Your task to perform on an android device: turn on showing notifications on the lock screen Image 0: 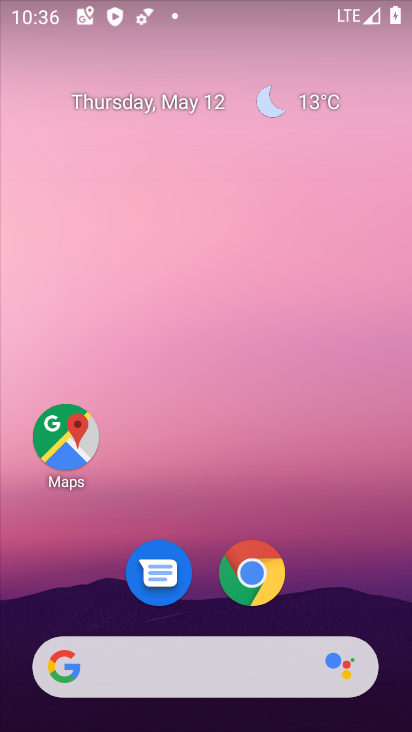
Step 0: drag from (206, 622) to (166, 70)
Your task to perform on an android device: turn on showing notifications on the lock screen Image 1: 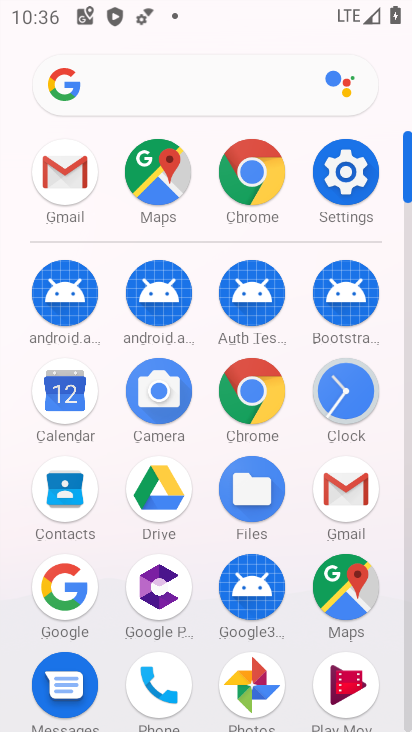
Step 1: click (367, 150)
Your task to perform on an android device: turn on showing notifications on the lock screen Image 2: 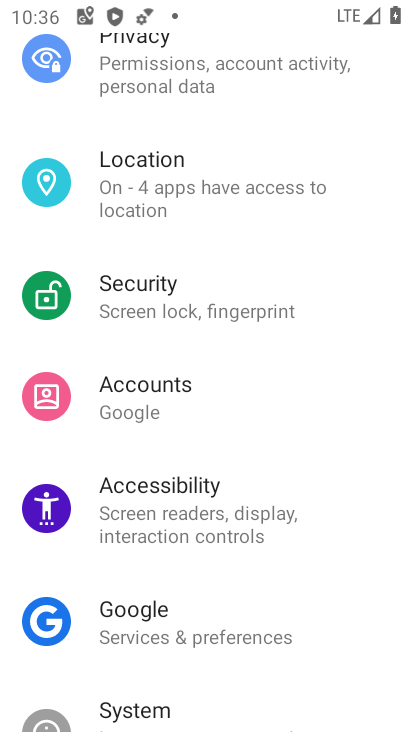
Step 2: drag from (168, 231) to (187, 632)
Your task to perform on an android device: turn on showing notifications on the lock screen Image 3: 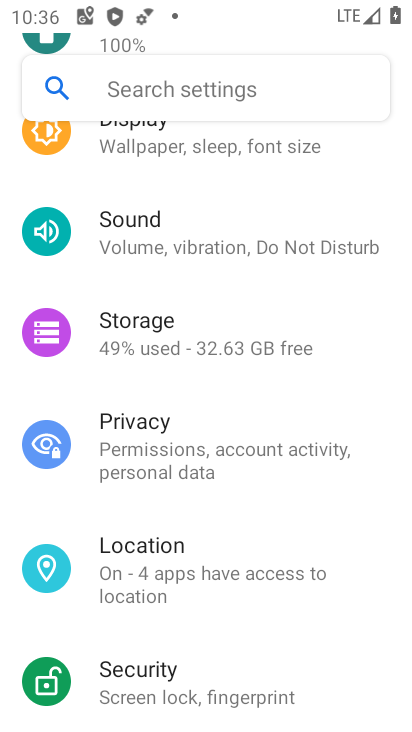
Step 3: drag from (245, 286) to (224, 619)
Your task to perform on an android device: turn on showing notifications on the lock screen Image 4: 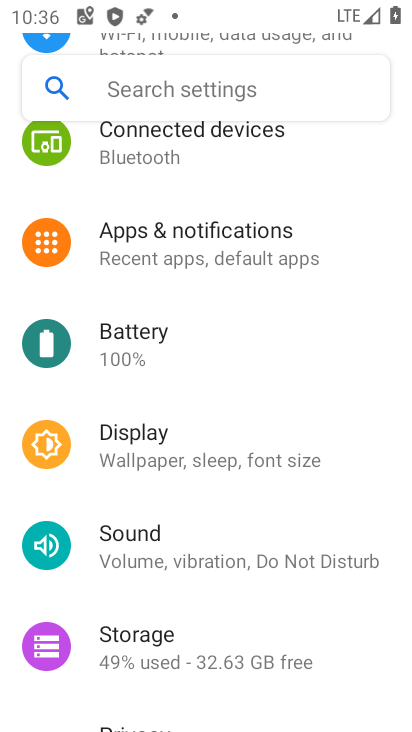
Step 4: click (179, 251)
Your task to perform on an android device: turn on showing notifications on the lock screen Image 5: 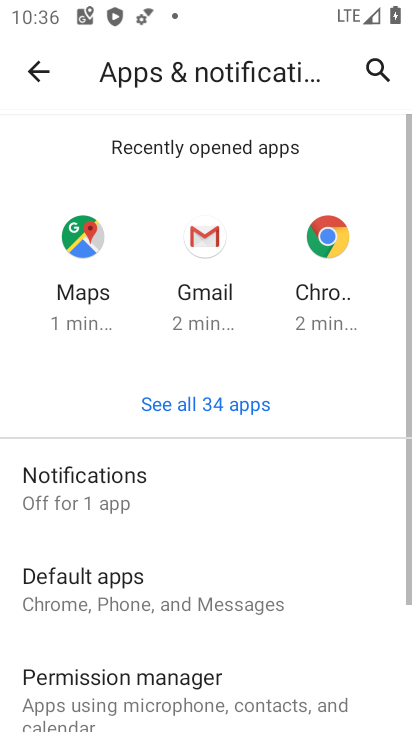
Step 5: click (67, 484)
Your task to perform on an android device: turn on showing notifications on the lock screen Image 6: 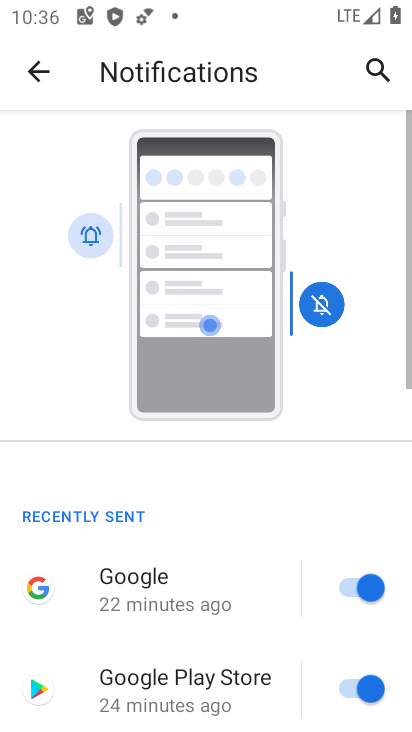
Step 6: drag from (181, 586) to (151, 4)
Your task to perform on an android device: turn on showing notifications on the lock screen Image 7: 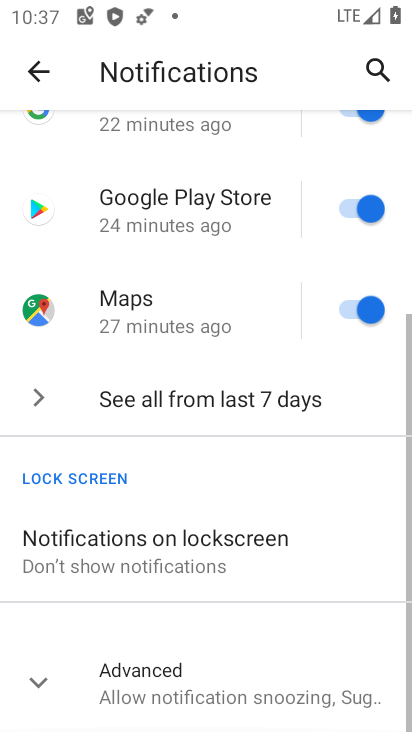
Step 7: click (180, 564)
Your task to perform on an android device: turn on showing notifications on the lock screen Image 8: 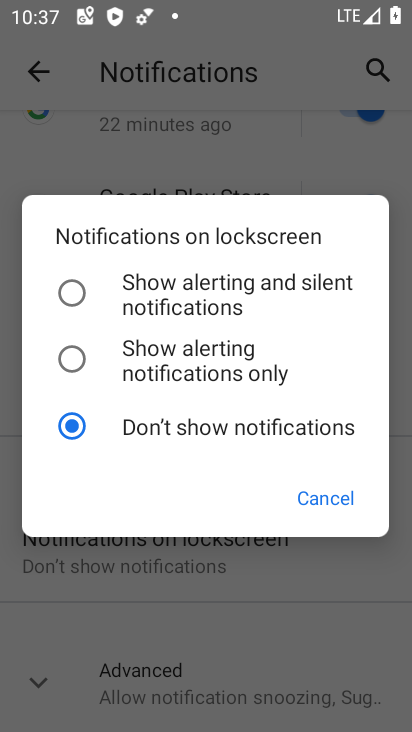
Step 8: click (226, 304)
Your task to perform on an android device: turn on showing notifications on the lock screen Image 9: 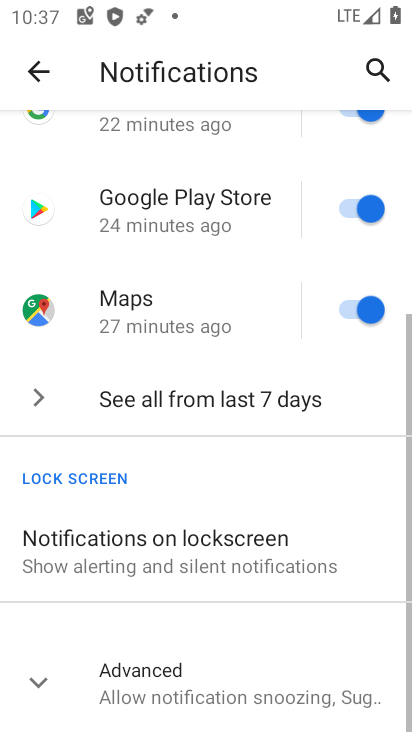
Step 9: task complete